Your task to perform on an android device: Open Youtube and go to the subscriptions tab Image 0: 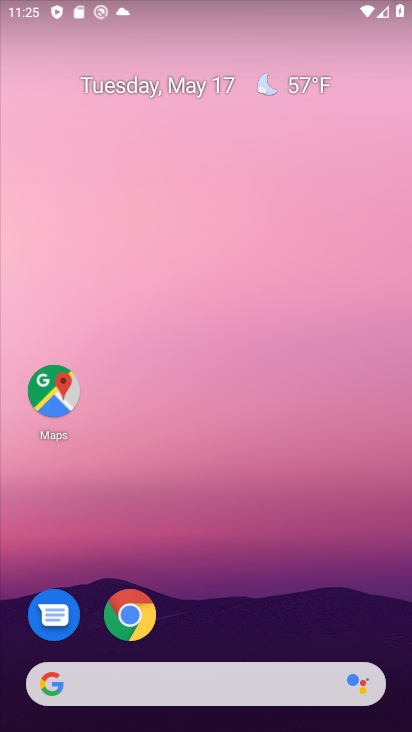
Step 0: drag from (373, 624) to (263, 35)
Your task to perform on an android device: Open Youtube and go to the subscriptions tab Image 1: 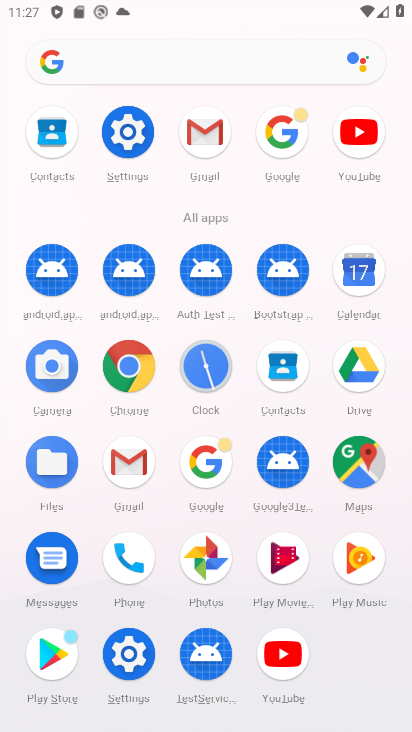
Step 1: click (283, 659)
Your task to perform on an android device: Open Youtube and go to the subscriptions tab Image 2: 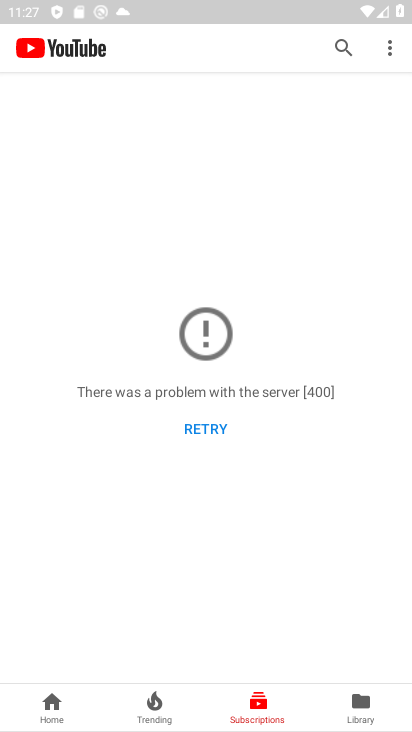
Step 2: task complete